Your task to perform on an android device: Go to network settings Image 0: 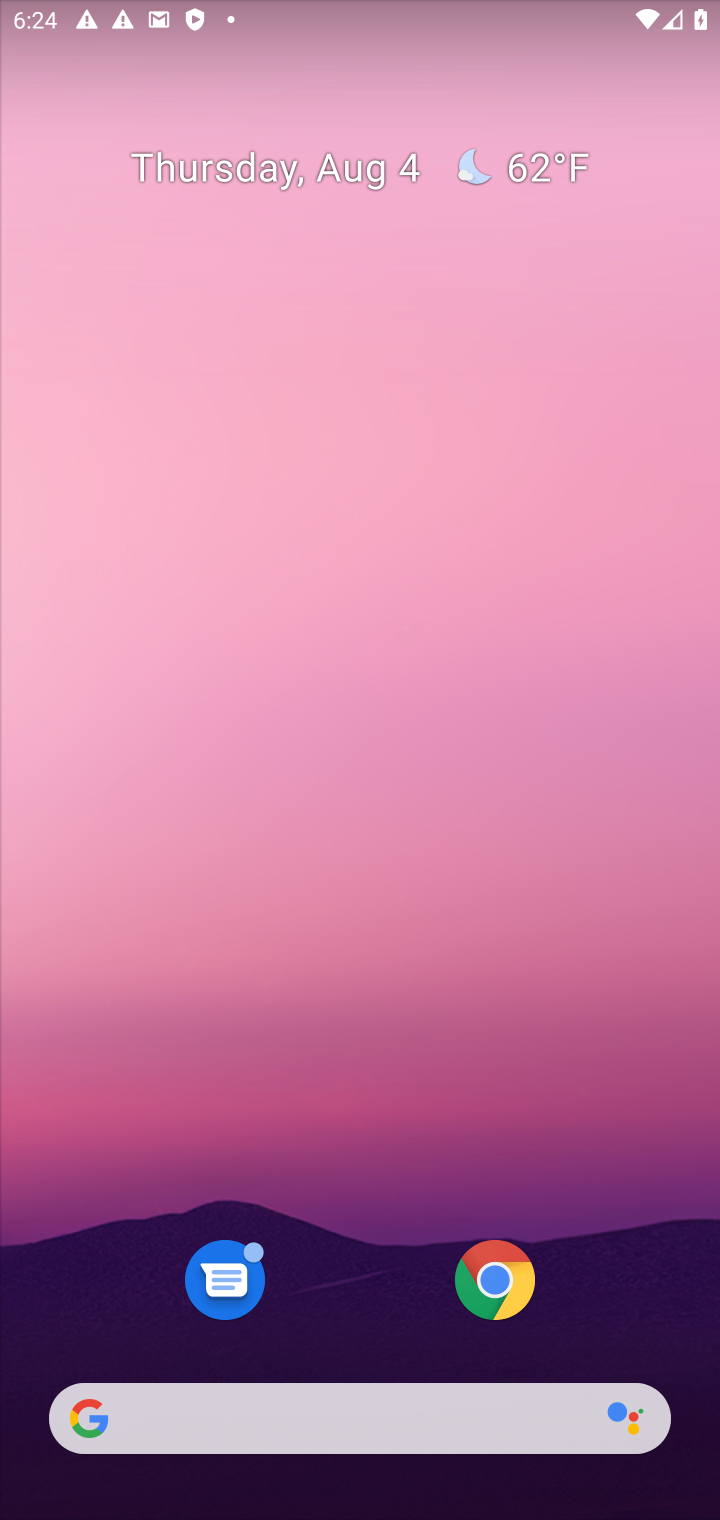
Step 0: drag from (364, 922) to (384, 64)
Your task to perform on an android device: Go to network settings Image 1: 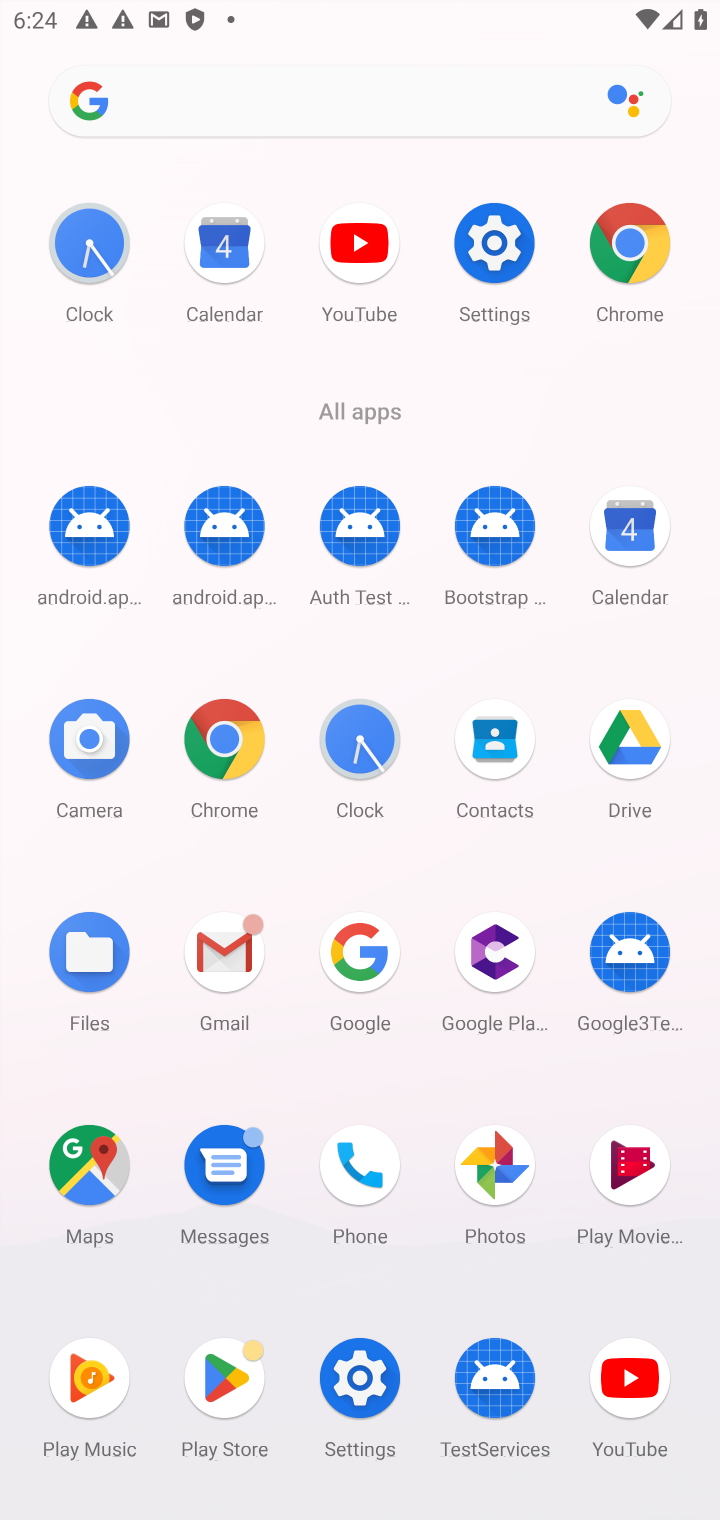
Step 1: click (497, 226)
Your task to perform on an android device: Go to network settings Image 2: 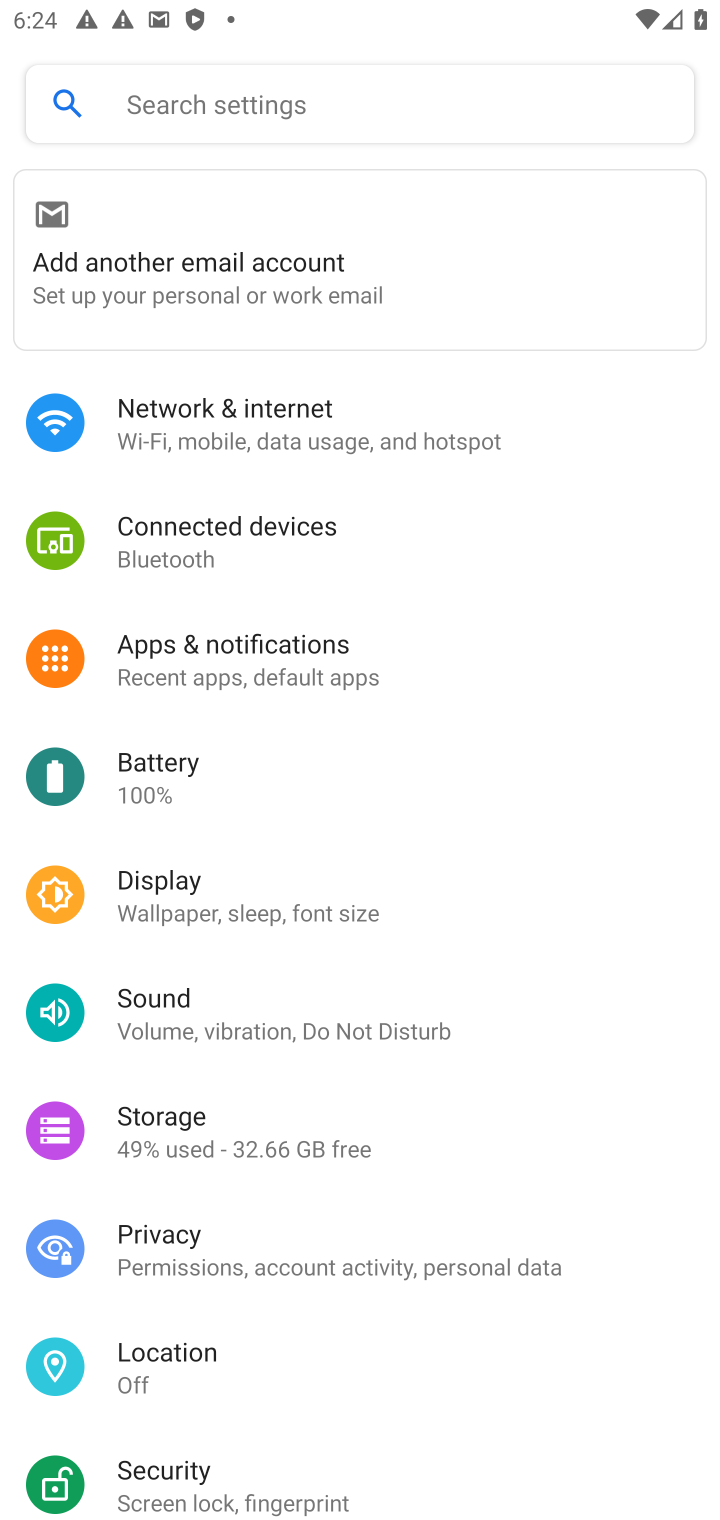
Step 2: click (140, 435)
Your task to perform on an android device: Go to network settings Image 3: 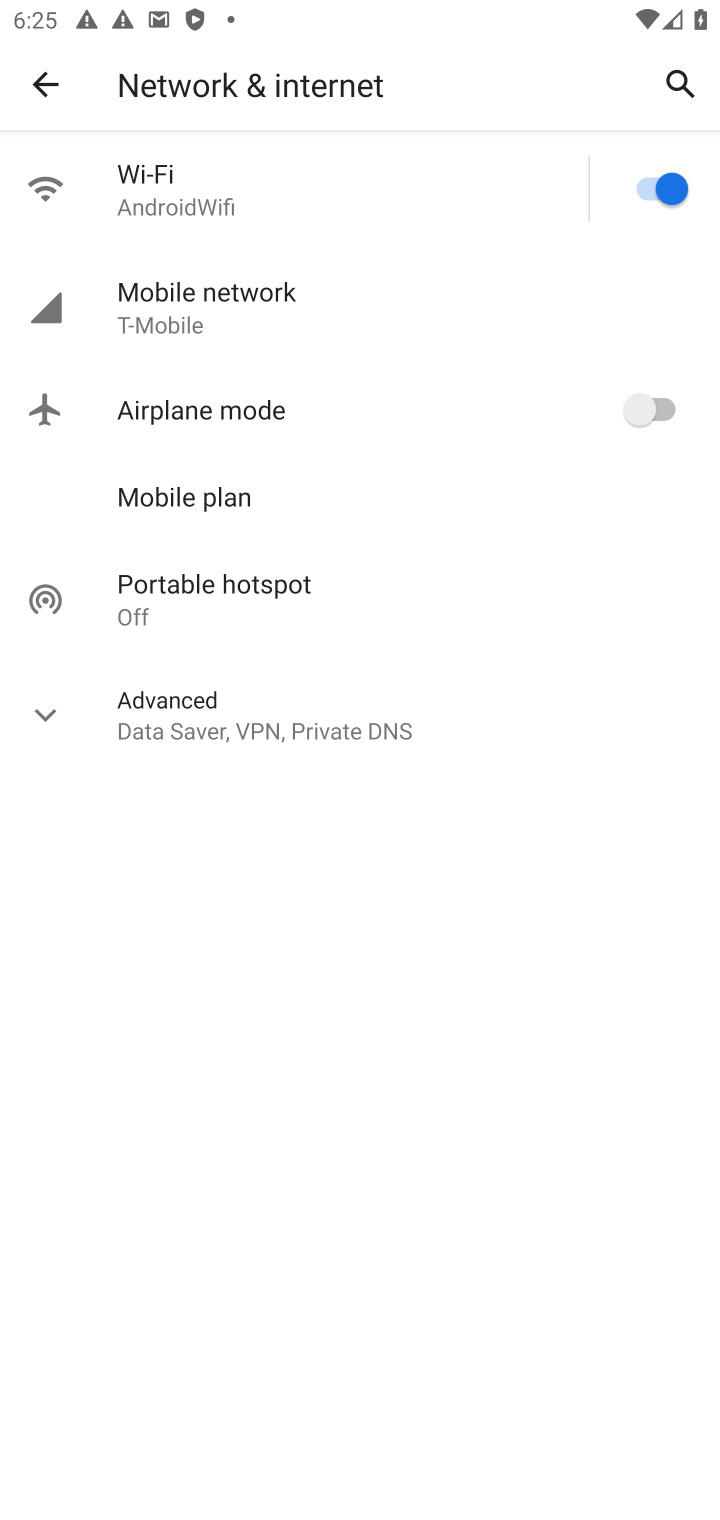
Step 3: task complete